Your task to perform on an android device: Go to Google maps Image 0: 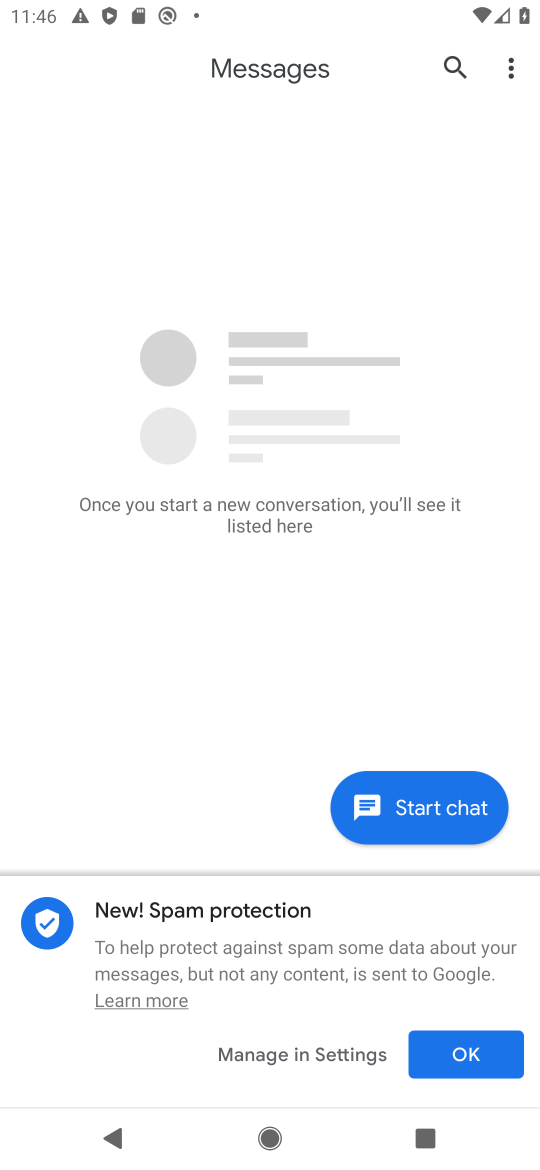
Step 0: press home button
Your task to perform on an android device: Go to Google maps Image 1: 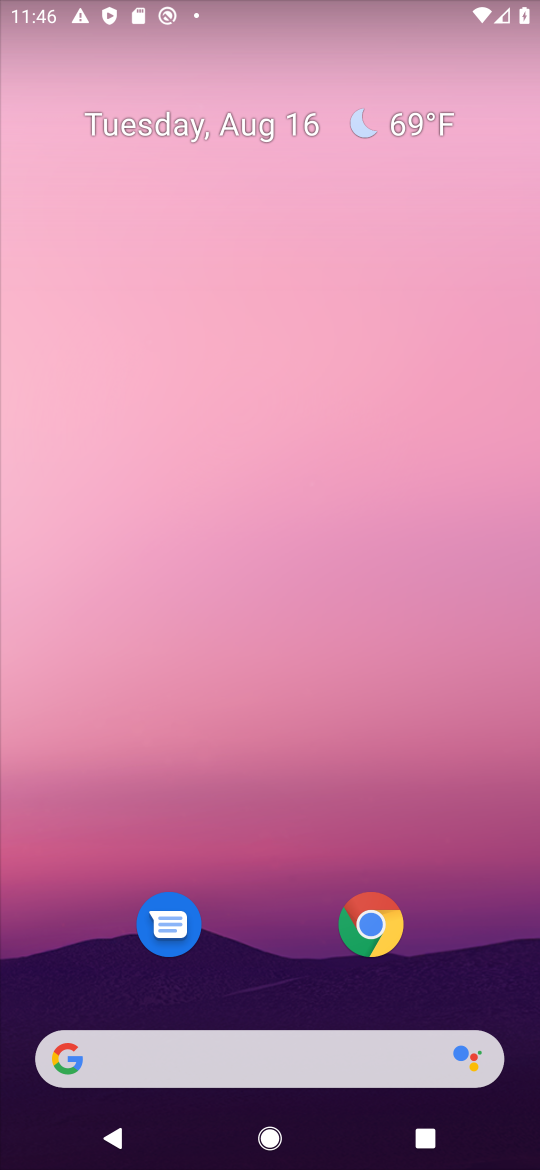
Step 1: drag from (269, 993) to (281, 118)
Your task to perform on an android device: Go to Google maps Image 2: 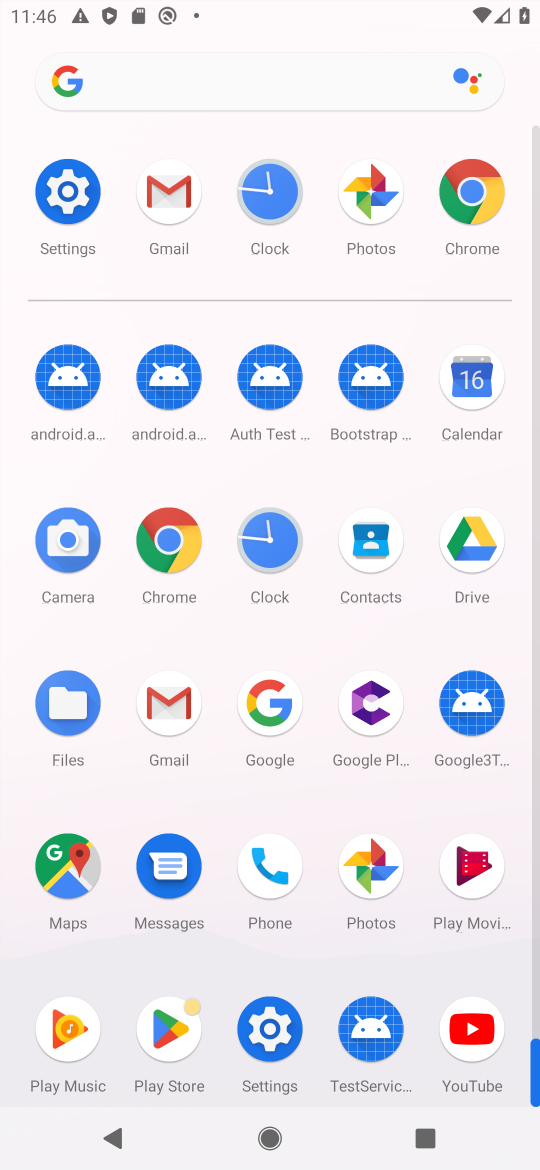
Step 2: click (67, 848)
Your task to perform on an android device: Go to Google maps Image 3: 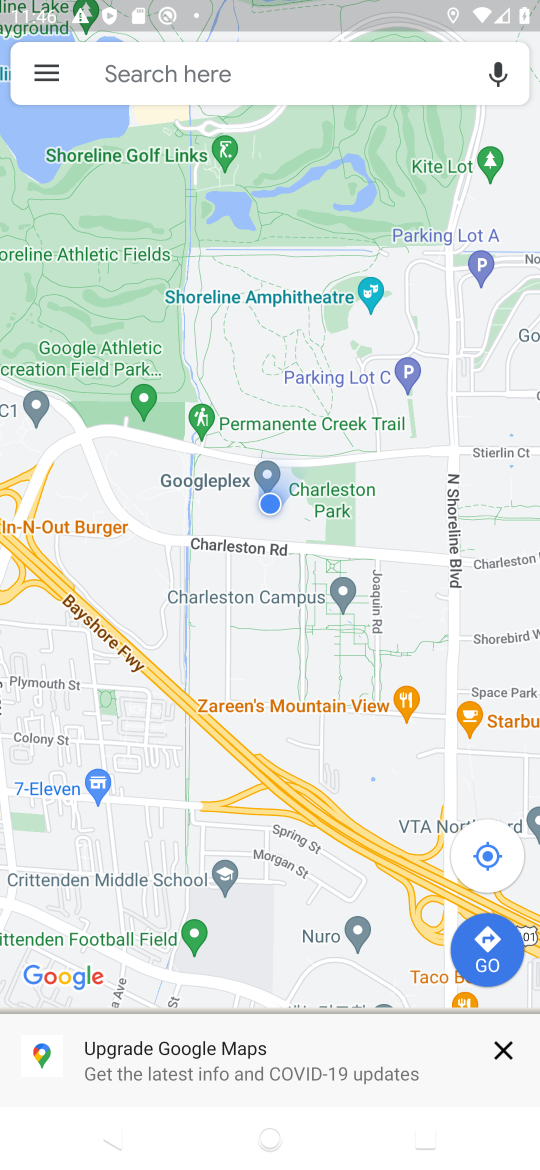
Step 3: task complete